Your task to perform on an android device: Clear the shopping cart on newegg. Add "bose soundlink" to the cart on newegg, then select checkout. Image 0: 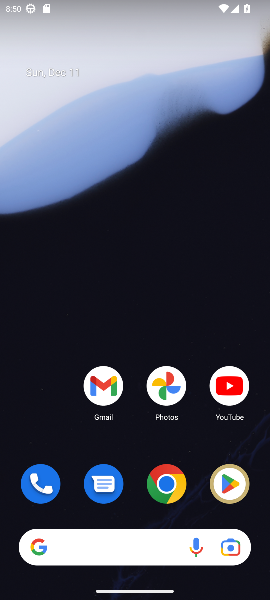
Step 0: click (170, 483)
Your task to perform on an android device: Clear the shopping cart on newegg. Add "bose soundlink" to the cart on newegg, then select checkout. Image 1: 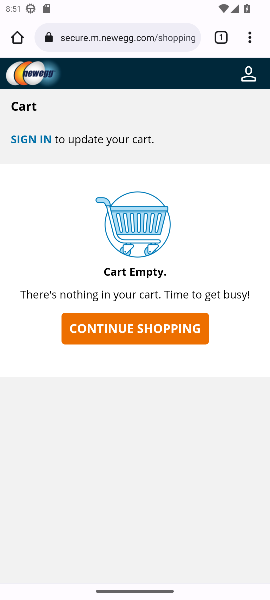
Step 1: click (94, 321)
Your task to perform on an android device: Clear the shopping cart on newegg. Add "bose soundlink" to the cart on newegg, then select checkout. Image 2: 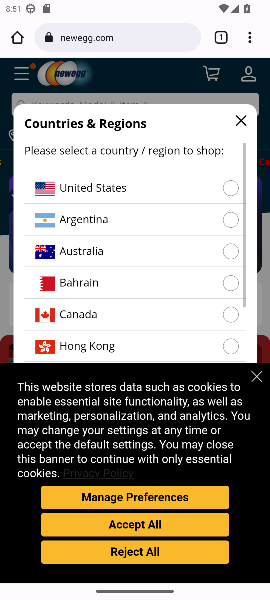
Step 2: click (120, 522)
Your task to perform on an android device: Clear the shopping cart on newegg. Add "bose soundlink" to the cart on newegg, then select checkout. Image 3: 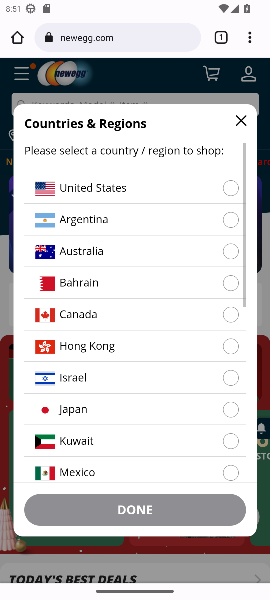
Step 3: click (105, 447)
Your task to perform on an android device: Clear the shopping cart on newegg. Add "bose soundlink" to the cart on newegg, then select checkout. Image 4: 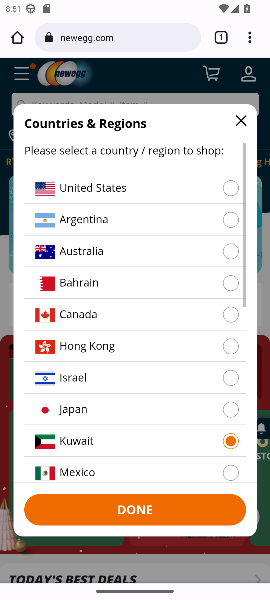
Step 4: click (207, 502)
Your task to perform on an android device: Clear the shopping cart on newegg. Add "bose soundlink" to the cart on newegg, then select checkout. Image 5: 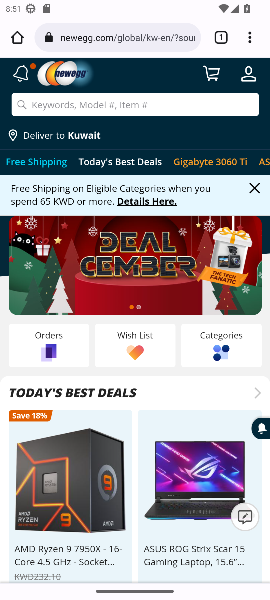
Step 5: click (84, 99)
Your task to perform on an android device: Clear the shopping cart on newegg. Add "bose soundlink" to the cart on newegg, then select checkout. Image 6: 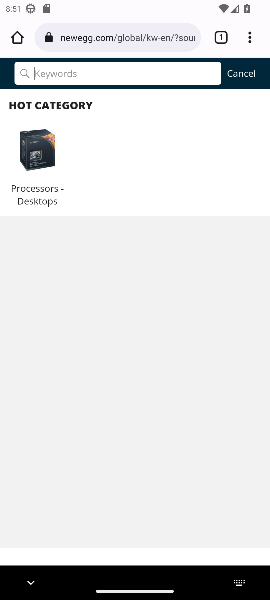
Step 6: type "bose soundlink"
Your task to perform on an android device: Clear the shopping cart on newegg. Add "bose soundlink" to the cart on newegg, then select checkout. Image 7: 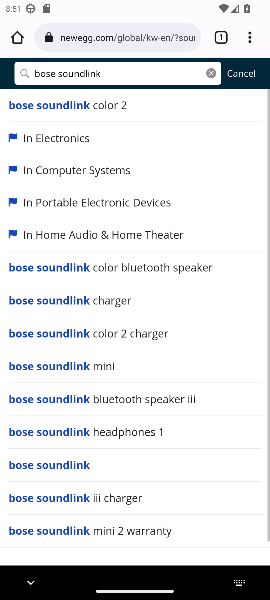
Step 7: click (77, 457)
Your task to perform on an android device: Clear the shopping cart on newegg. Add "bose soundlink" to the cart on newegg, then select checkout. Image 8: 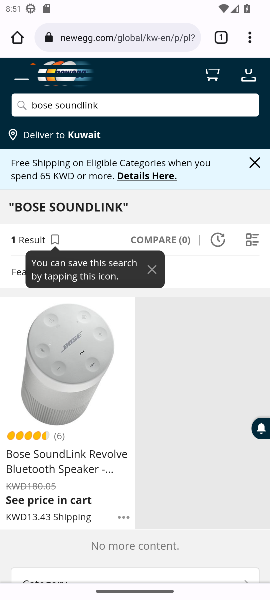
Step 8: click (77, 457)
Your task to perform on an android device: Clear the shopping cart on newegg. Add "bose soundlink" to the cart on newegg, then select checkout. Image 9: 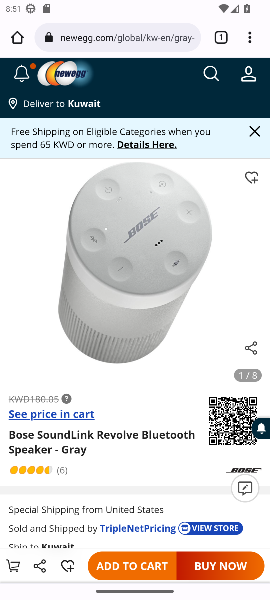
Step 9: click (144, 566)
Your task to perform on an android device: Clear the shopping cart on newegg. Add "bose soundlink" to the cart on newegg, then select checkout. Image 10: 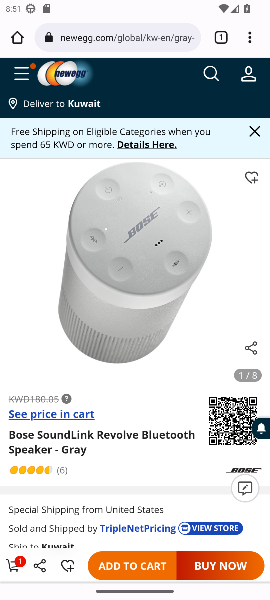
Step 10: click (17, 557)
Your task to perform on an android device: Clear the shopping cart on newegg. Add "bose soundlink" to the cart on newegg, then select checkout. Image 11: 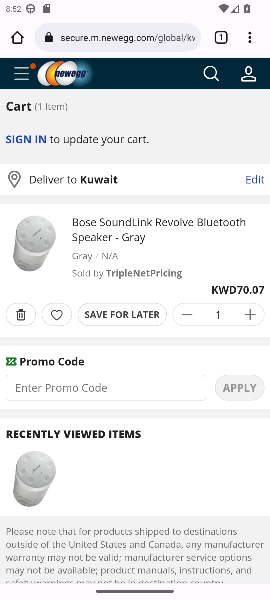
Step 11: click (154, 559)
Your task to perform on an android device: Clear the shopping cart on newegg. Add "bose soundlink" to the cart on newegg, then select checkout. Image 12: 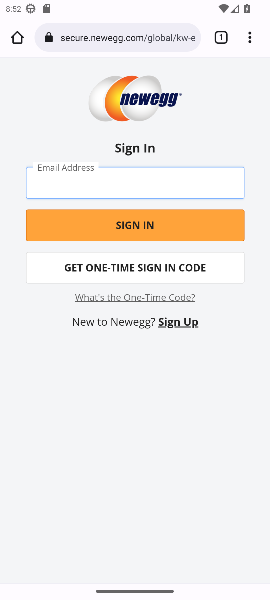
Step 12: task complete